Your task to perform on an android device: Open the calendar app, open the side menu, and click the "Day" option Image 0: 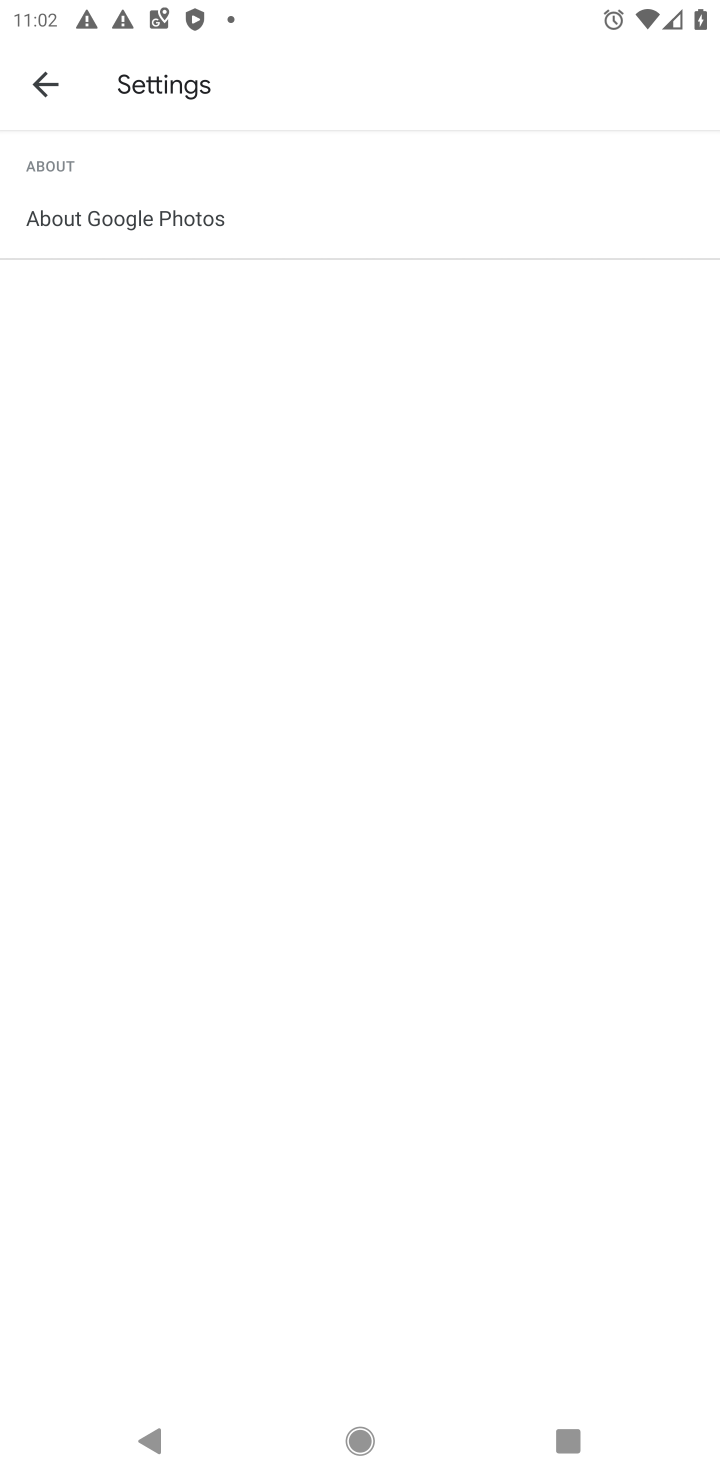
Step 0: press home button
Your task to perform on an android device: Open the calendar app, open the side menu, and click the "Day" option Image 1: 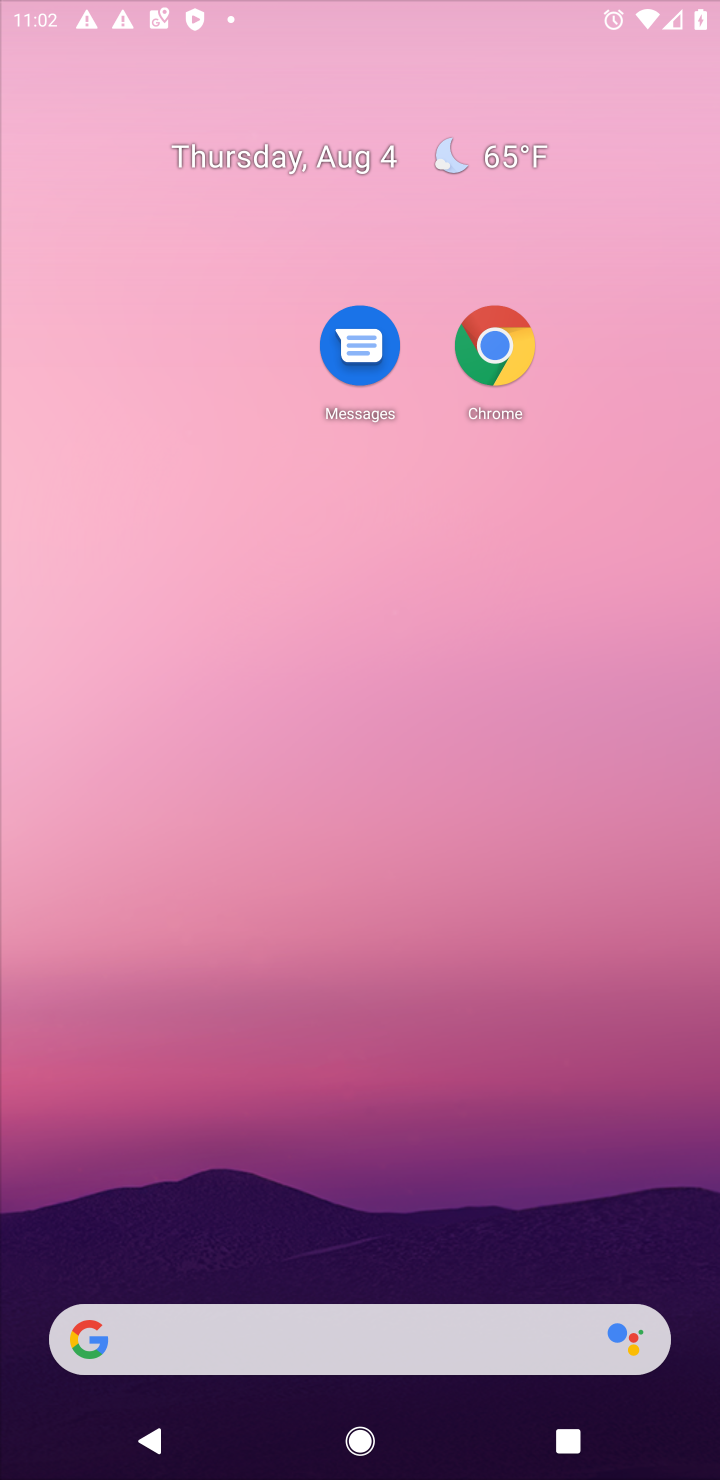
Step 1: drag from (402, 896) to (424, 42)
Your task to perform on an android device: Open the calendar app, open the side menu, and click the "Day" option Image 2: 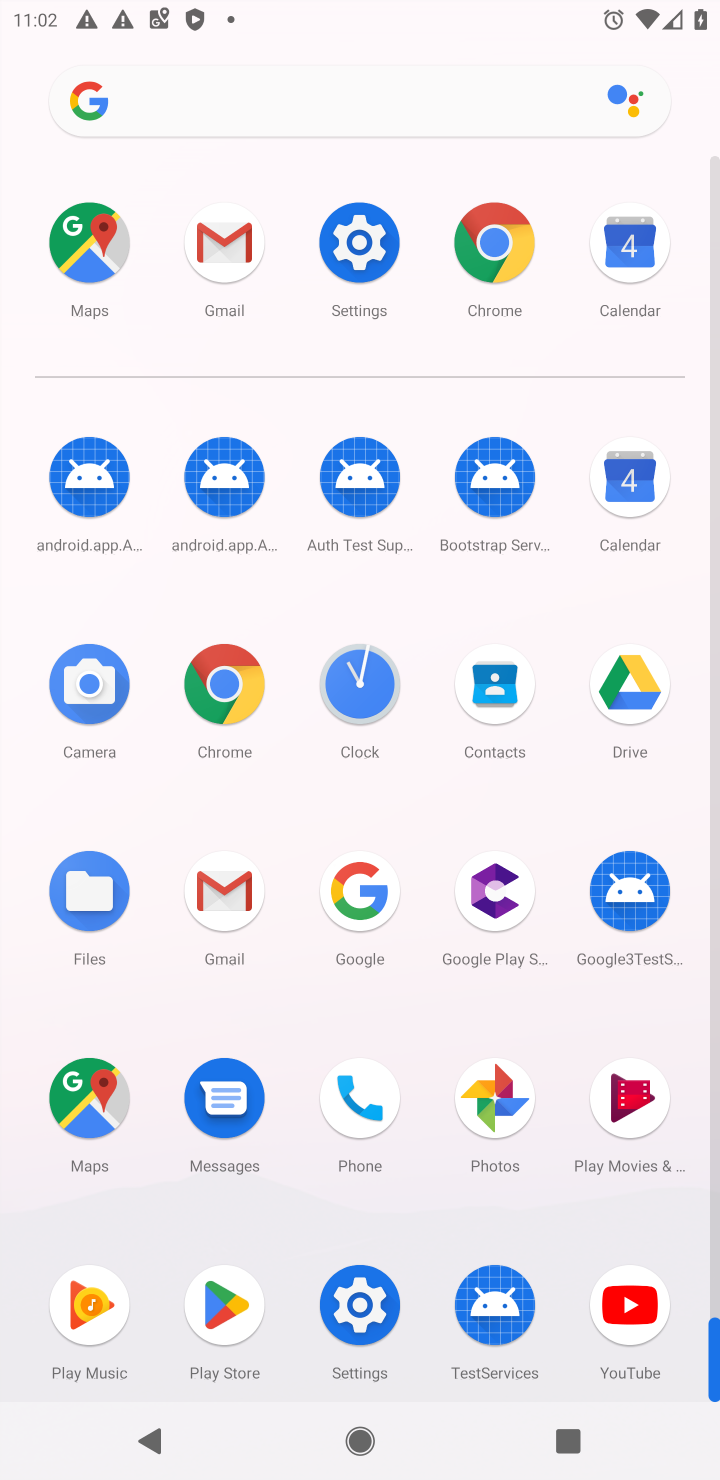
Step 2: click (625, 498)
Your task to perform on an android device: Open the calendar app, open the side menu, and click the "Day" option Image 3: 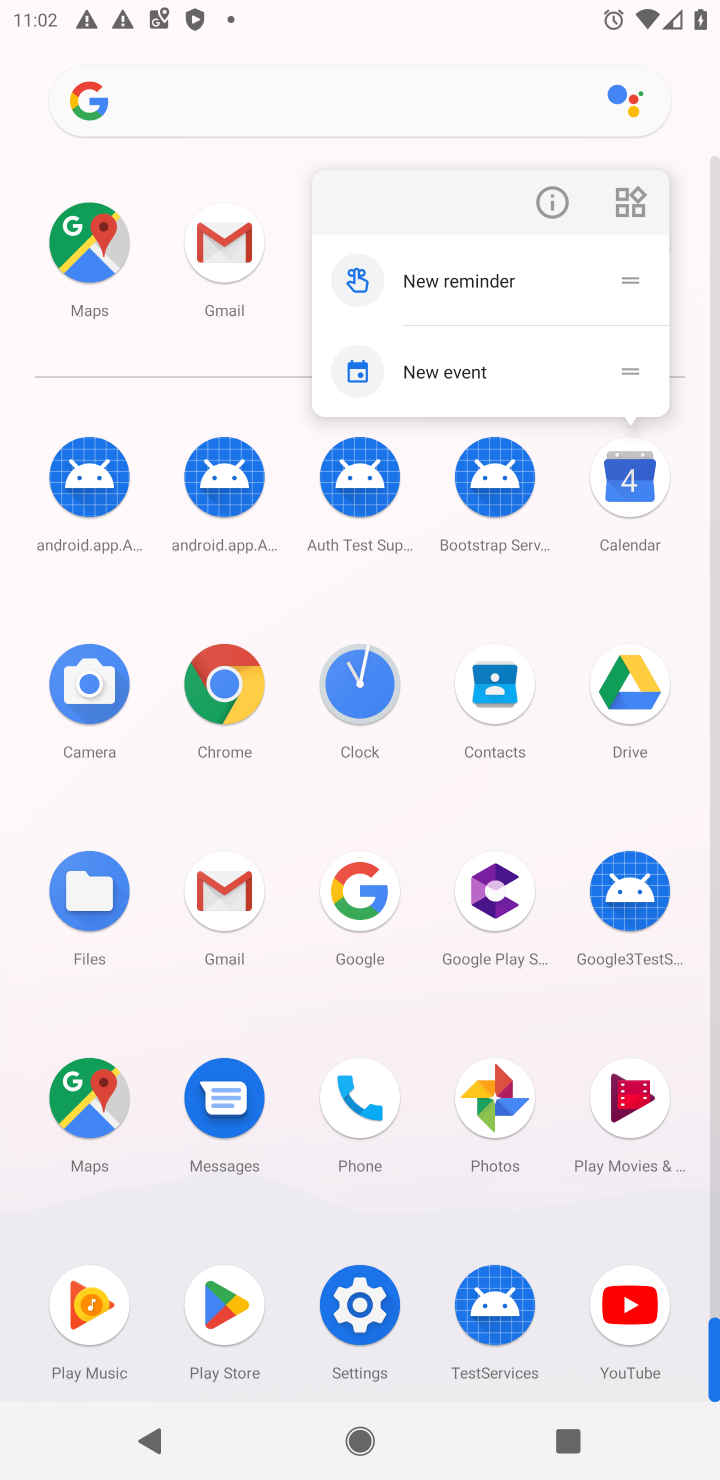
Step 3: click (616, 479)
Your task to perform on an android device: Open the calendar app, open the side menu, and click the "Day" option Image 4: 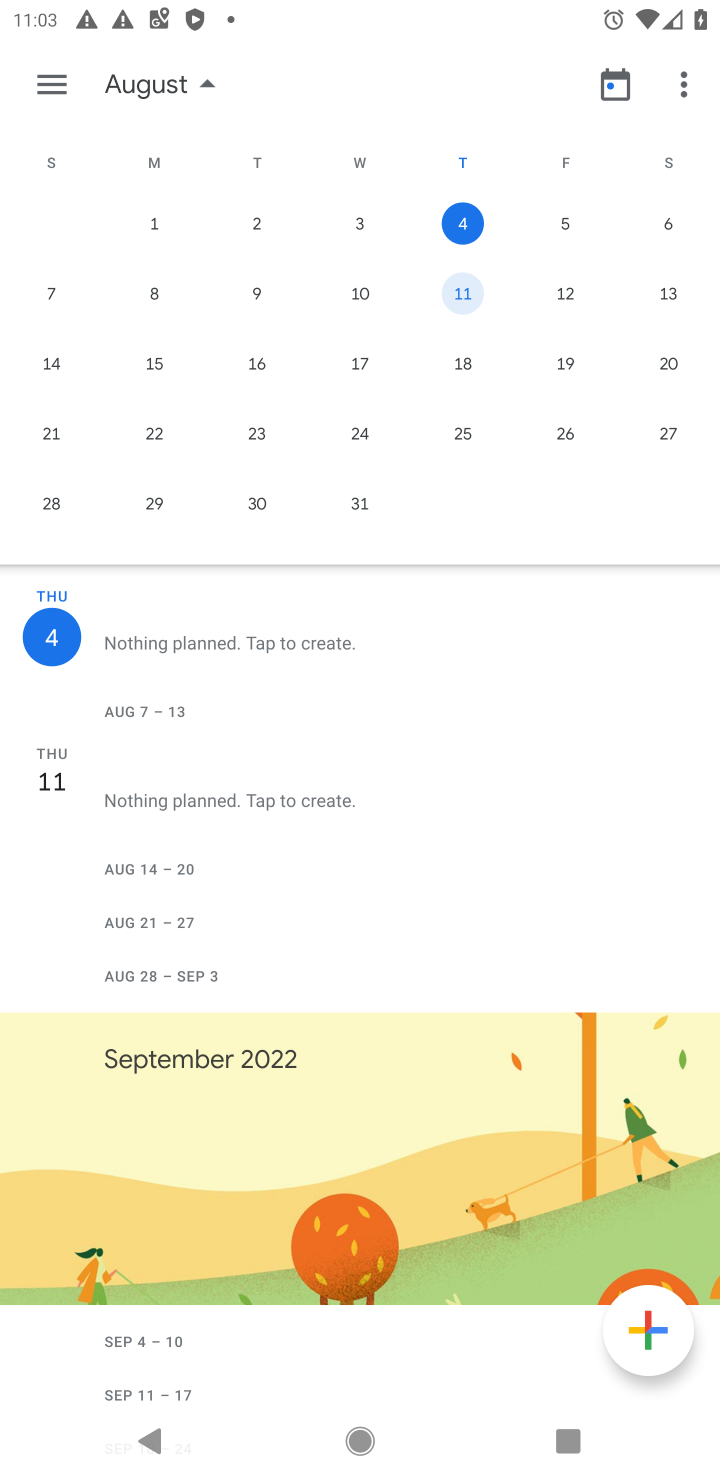
Step 4: click (71, 80)
Your task to perform on an android device: Open the calendar app, open the side menu, and click the "Day" option Image 5: 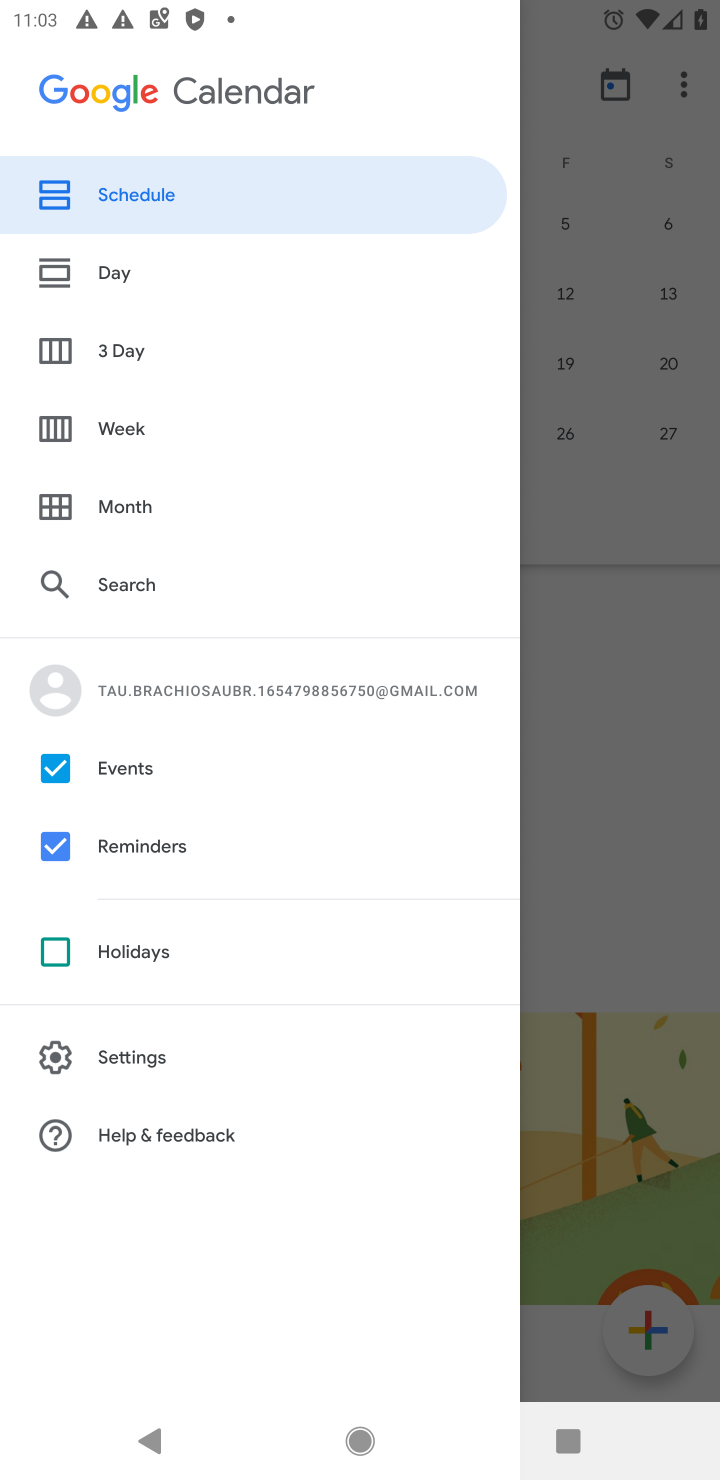
Step 5: click (77, 265)
Your task to perform on an android device: Open the calendar app, open the side menu, and click the "Day" option Image 6: 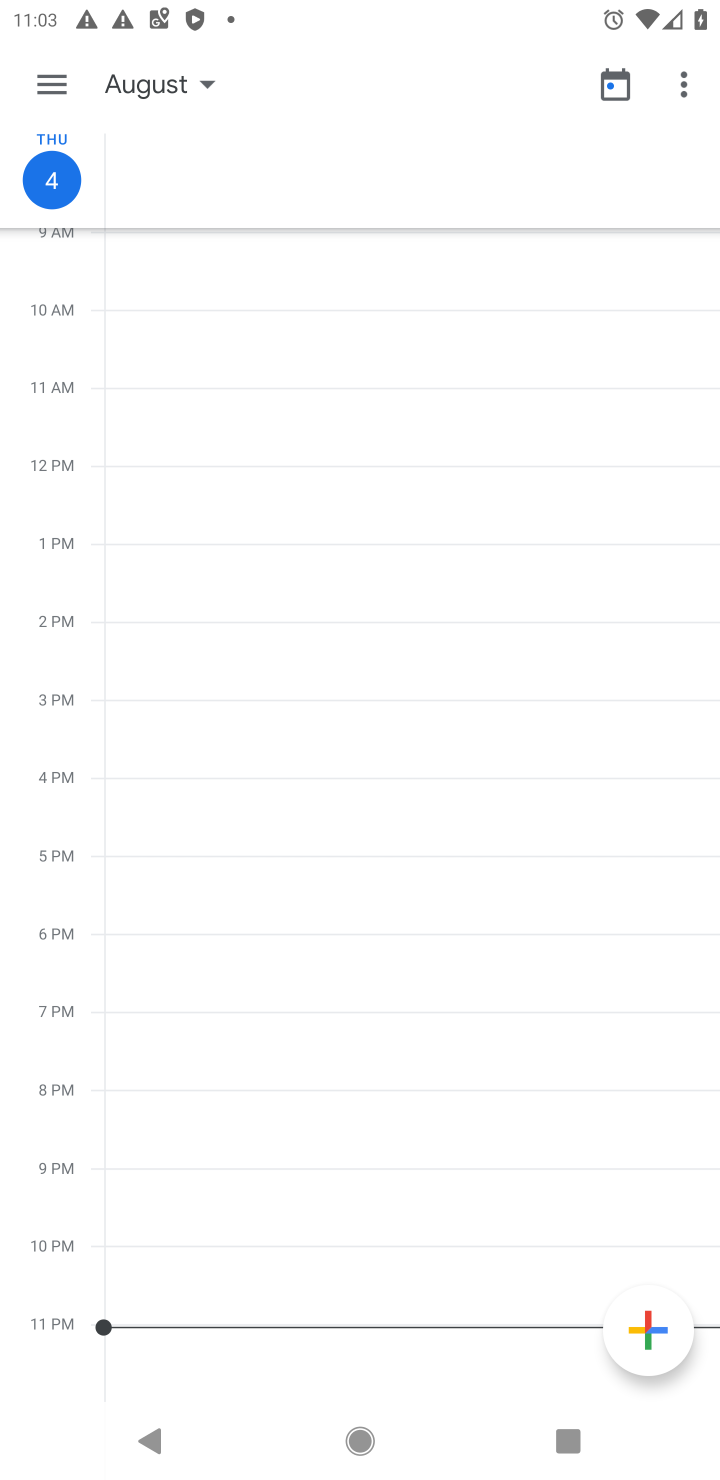
Step 6: task complete